Your task to perform on an android device: Search for macbook pro 15 inch on walmart.com, select the first entry, and add it to the cart. Image 0: 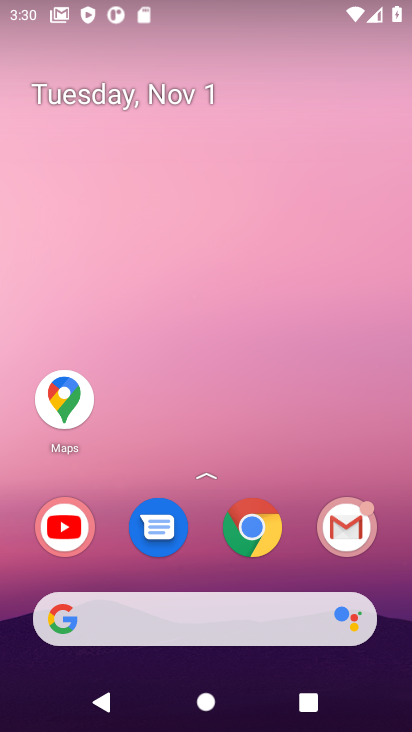
Step 0: click (207, 608)
Your task to perform on an android device: Search for macbook pro 15 inch on walmart.com, select the first entry, and add it to the cart. Image 1: 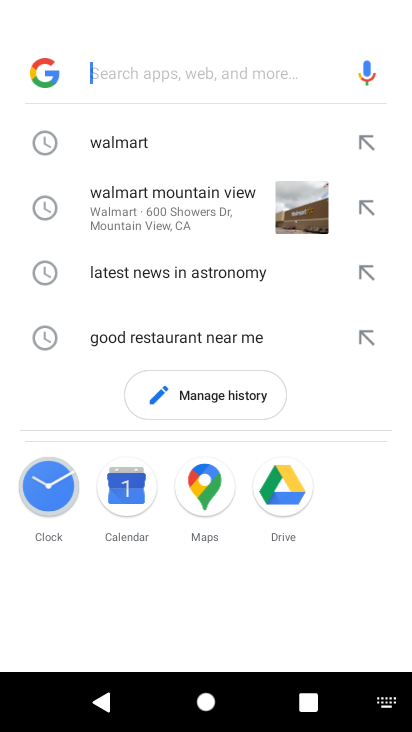
Step 1: type "walmart.com"
Your task to perform on an android device: Search for macbook pro 15 inch on walmart.com, select the first entry, and add it to the cart. Image 2: 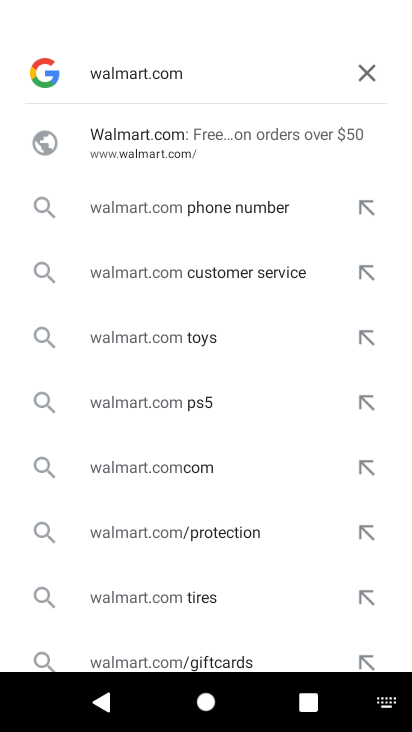
Step 2: click (161, 145)
Your task to perform on an android device: Search for macbook pro 15 inch on walmart.com, select the first entry, and add it to the cart. Image 3: 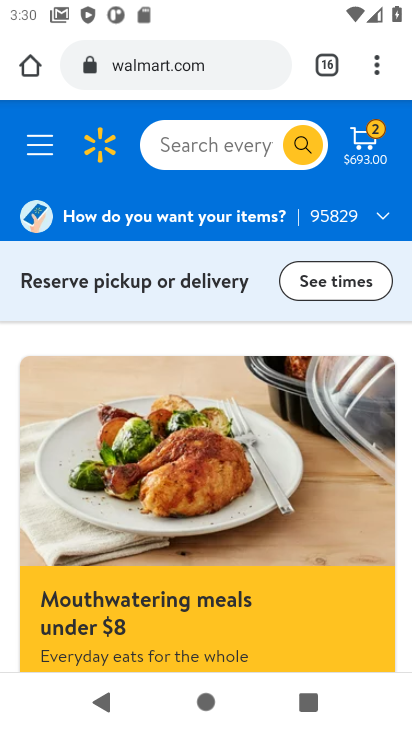
Step 3: click (204, 137)
Your task to perform on an android device: Search for macbook pro 15 inch on walmart.com, select the first entry, and add it to the cart. Image 4: 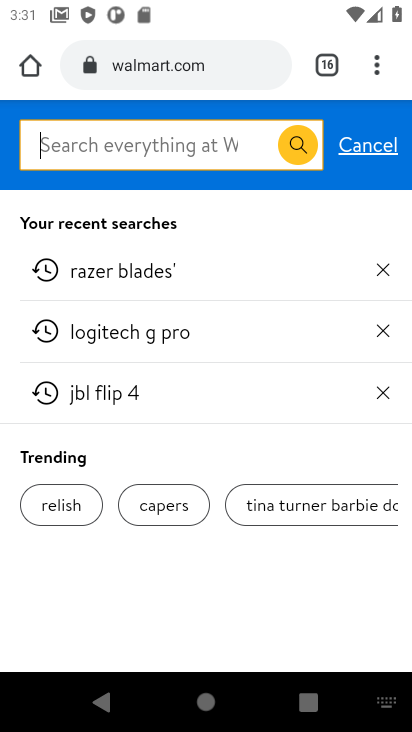
Step 4: type "macbook pro 15 inch"
Your task to perform on an android device: Search for macbook pro 15 inch on walmart.com, select the first entry, and add it to the cart. Image 5: 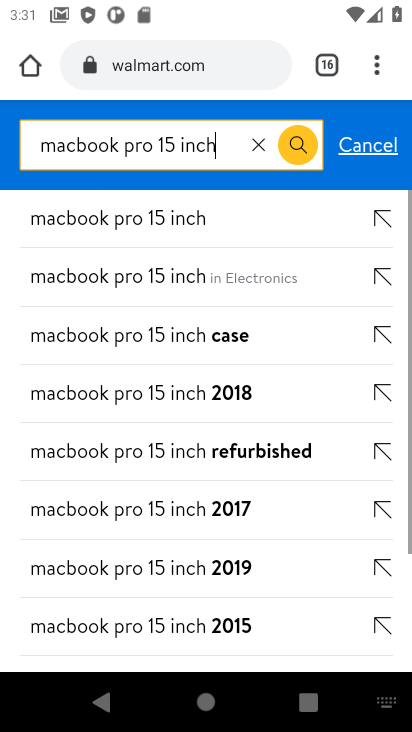
Step 5: click (161, 219)
Your task to perform on an android device: Search for macbook pro 15 inch on walmart.com, select the first entry, and add it to the cart. Image 6: 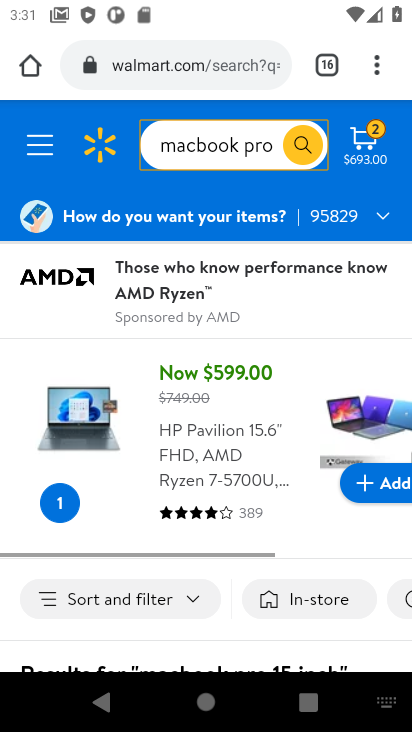
Step 6: click (361, 500)
Your task to perform on an android device: Search for macbook pro 15 inch on walmart.com, select the first entry, and add it to the cart. Image 7: 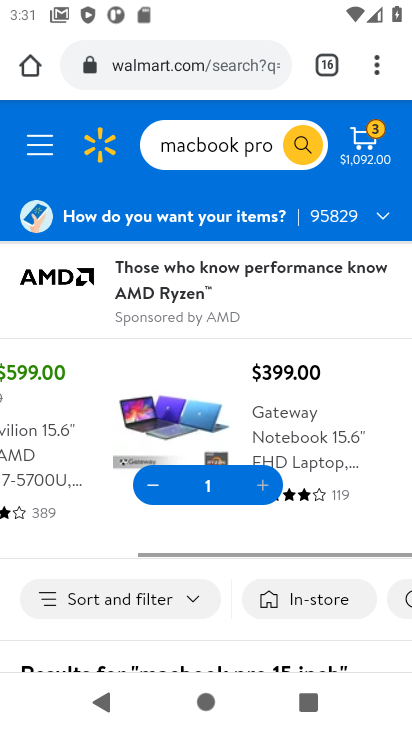
Step 7: task complete